Your task to perform on an android device: Open Chrome and go to the settings page Image 0: 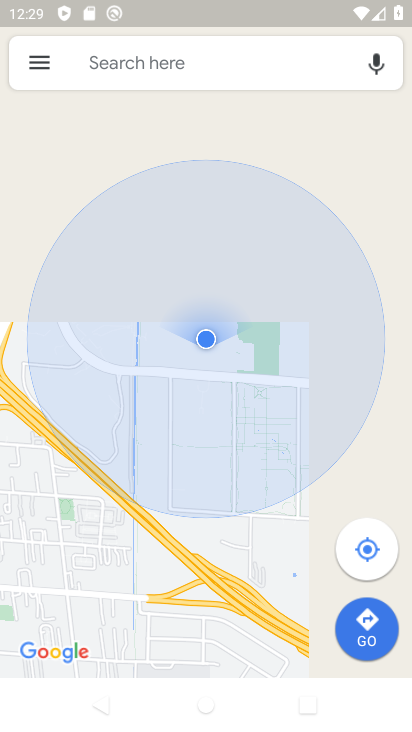
Step 0: press home button
Your task to perform on an android device: Open Chrome and go to the settings page Image 1: 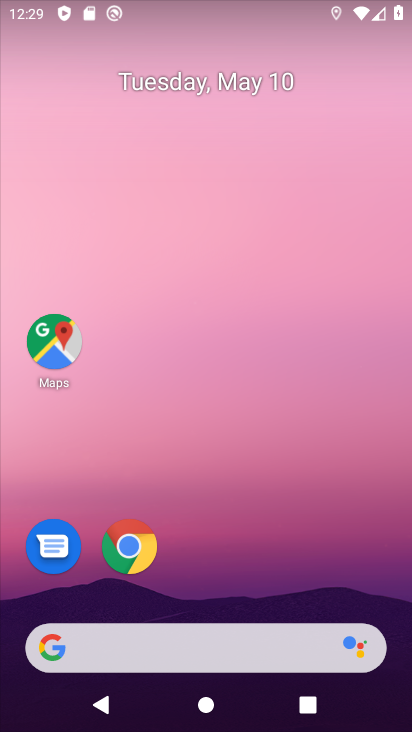
Step 1: click (150, 532)
Your task to perform on an android device: Open Chrome and go to the settings page Image 2: 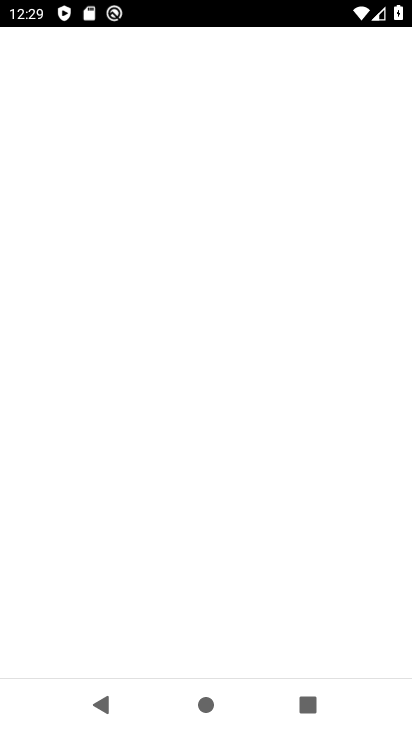
Step 2: click (241, 639)
Your task to perform on an android device: Open Chrome and go to the settings page Image 3: 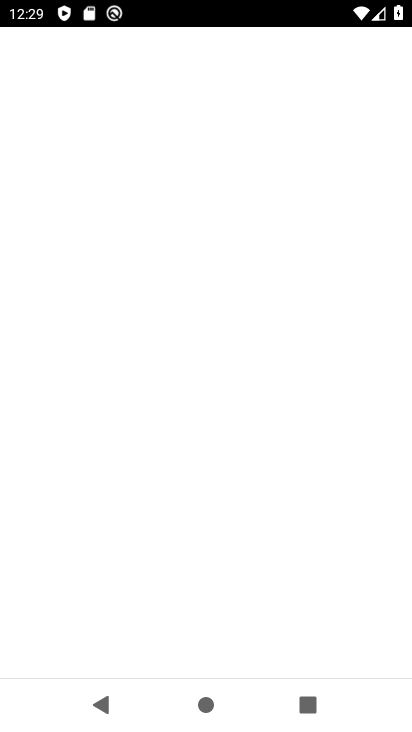
Step 3: click (241, 639)
Your task to perform on an android device: Open Chrome and go to the settings page Image 4: 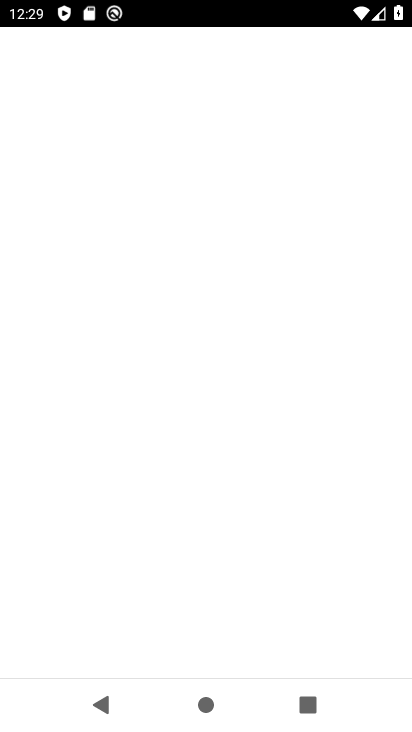
Step 4: click (241, 639)
Your task to perform on an android device: Open Chrome and go to the settings page Image 5: 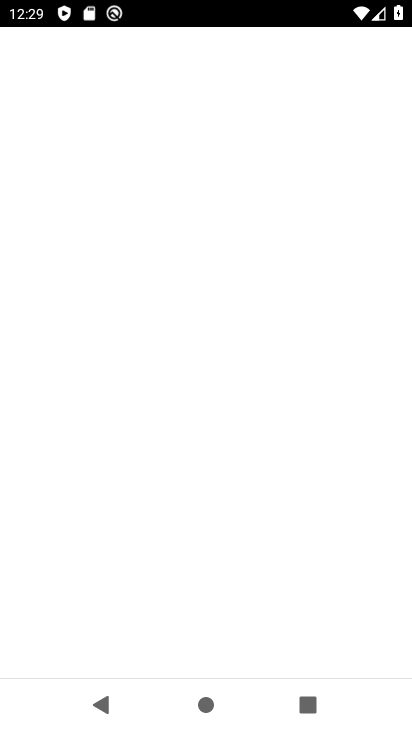
Step 5: click (241, 639)
Your task to perform on an android device: Open Chrome and go to the settings page Image 6: 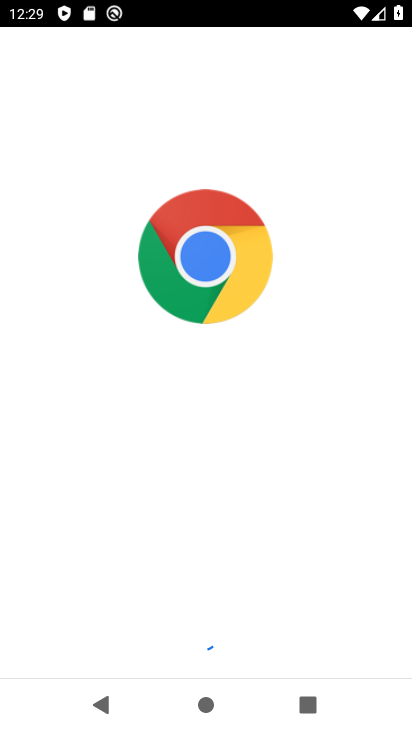
Step 6: click (235, 646)
Your task to perform on an android device: Open Chrome and go to the settings page Image 7: 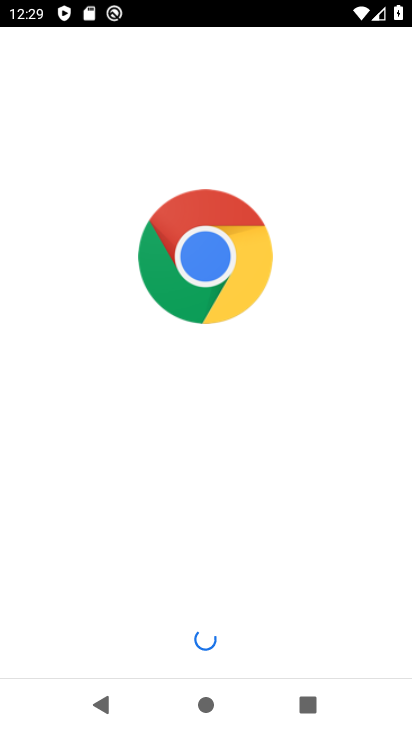
Step 7: click (358, 648)
Your task to perform on an android device: Open Chrome and go to the settings page Image 8: 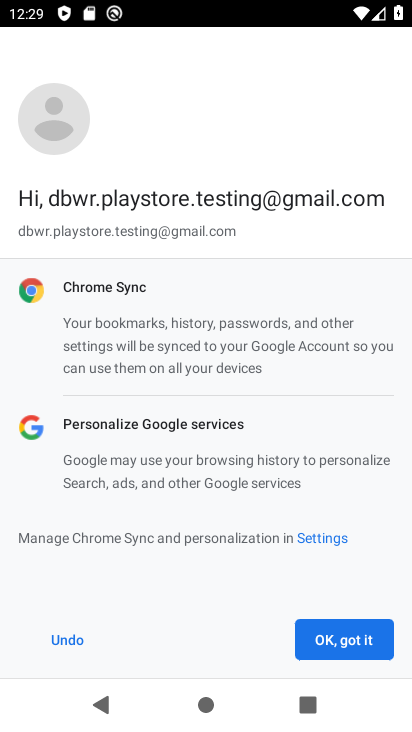
Step 8: click (347, 626)
Your task to perform on an android device: Open Chrome and go to the settings page Image 9: 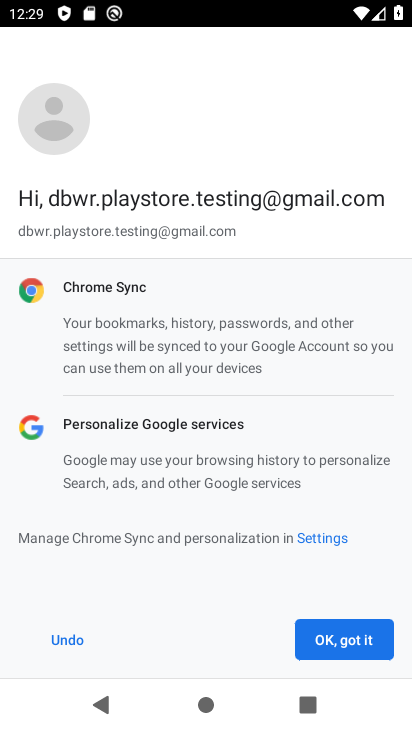
Step 9: click (347, 626)
Your task to perform on an android device: Open Chrome and go to the settings page Image 10: 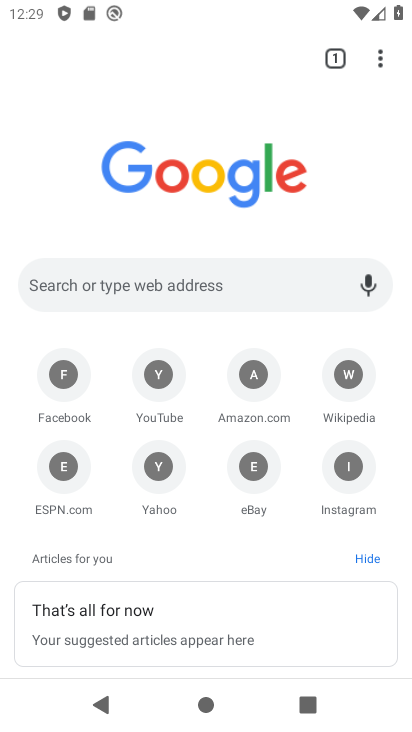
Step 10: click (381, 53)
Your task to perform on an android device: Open Chrome and go to the settings page Image 11: 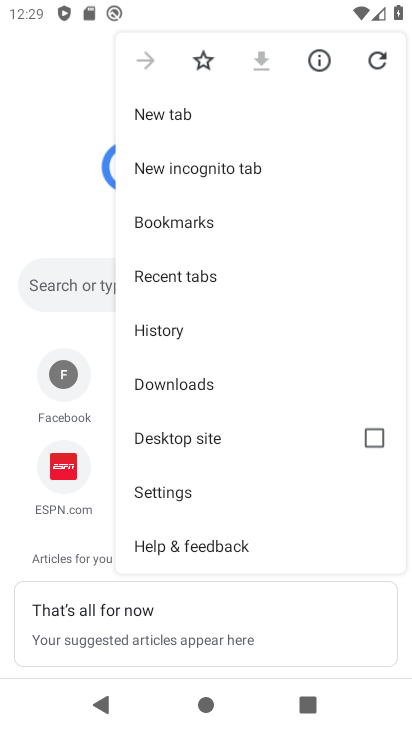
Step 11: click (217, 479)
Your task to perform on an android device: Open Chrome and go to the settings page Image 12: 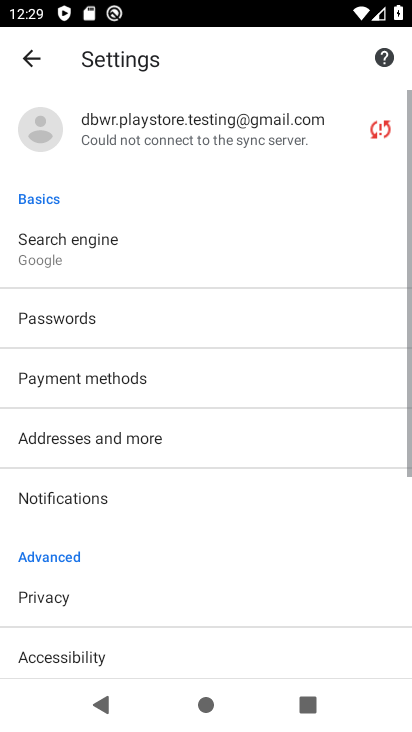
Step 12: task complete